Your task to perform on an android device: turn off translation in the chrome app Image 0: 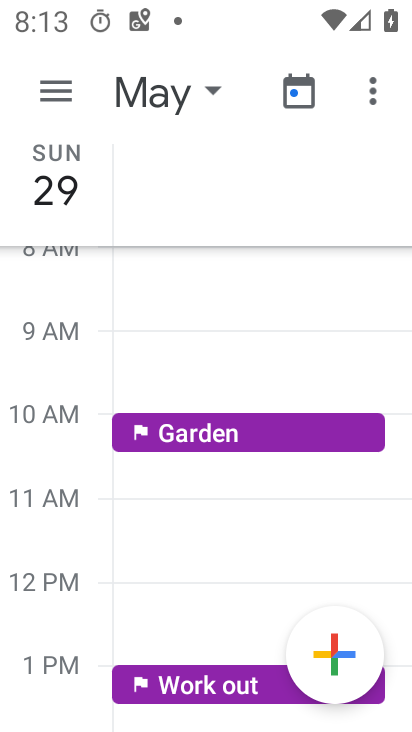
Step 0: press home button
Your task to perform on an android device: turn off translation in the chrome app Image 1: 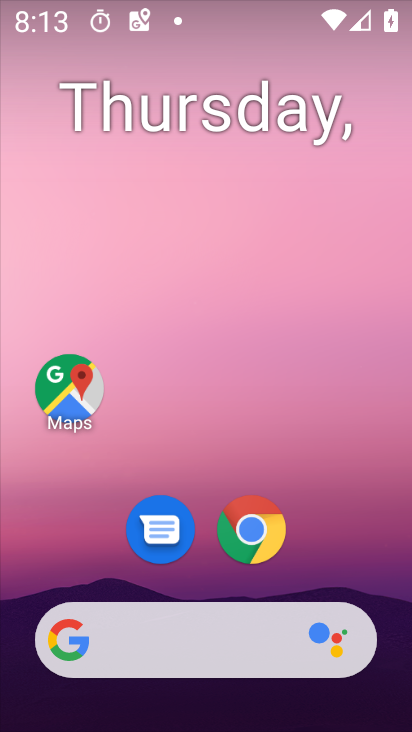
Step 1: click (254, 518)
Your task to perform on an android device: turn off translation in the chrome app Image 2: 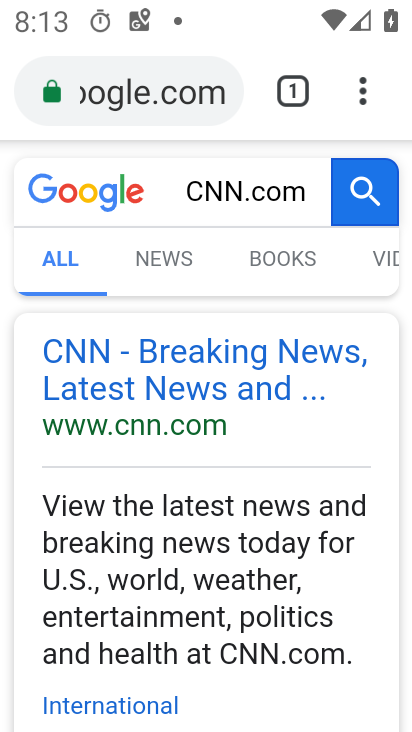
Step 2: click (363, 88)
Your task to perform on an android device: turn off translation in the chrome app Image 3: 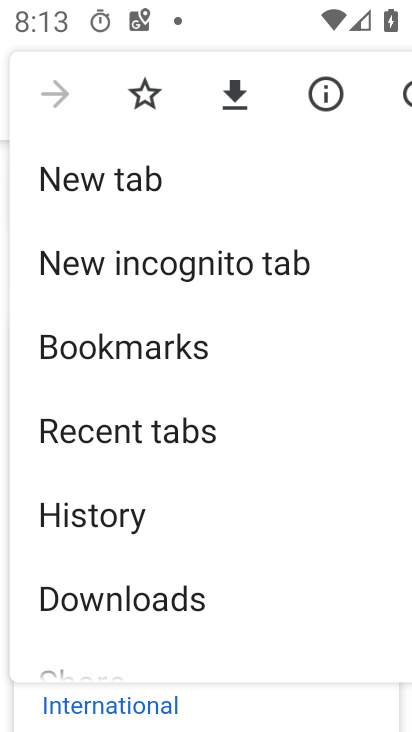
Step 3: drag from (303, 648) to (291, 227)
Your task to perform on an android device: turn off translation in the chrome app Image 4: 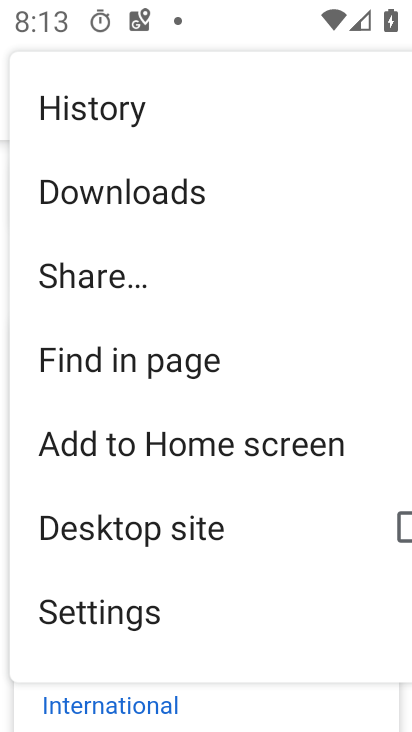
Step 4: click (115, 605)
Your task to perform on an android device: turn off translation in the chrome app Image 5: 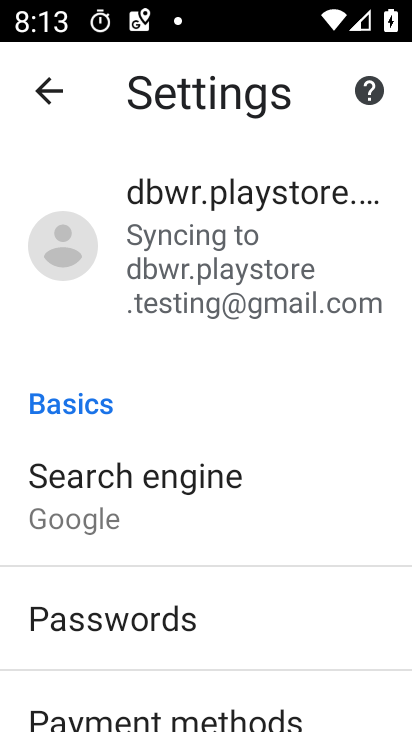
Step 5: drag from (341, 718) to (325, 297)
Your task to perform on an android device: turn off translation in the chrome app Image 6: 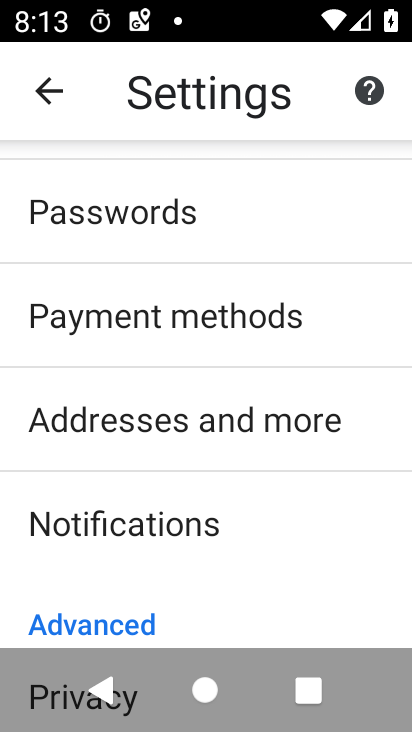
Step 6: drag from (345, 626) to (293, 180)
Your task to perform on an android device: turn off translation in the chrome app Image 7: 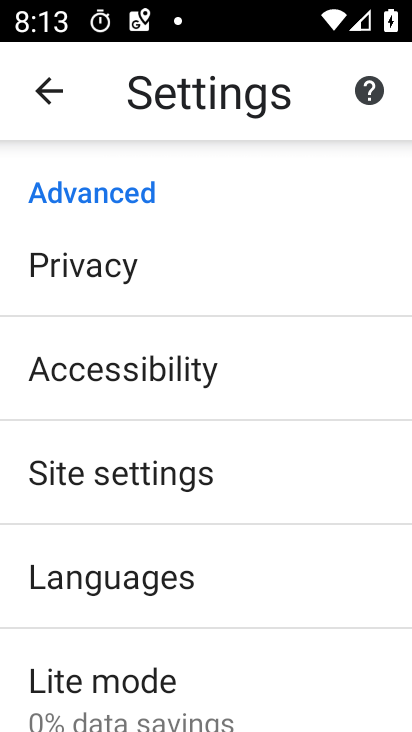
Step 7: click (115, 563)
Your task to perform on an android device: turn off translation in the chrome app Image 8: 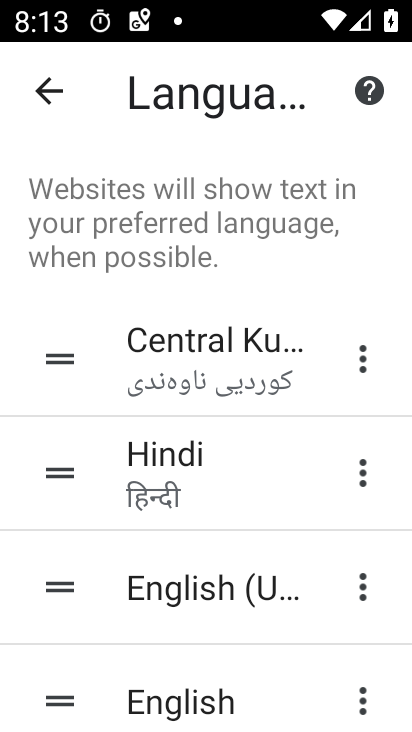
Step 8: drag from (294, 721) to (333, 367)
Your task to perform on an android device: turn off translation in the chrome app Image 9: 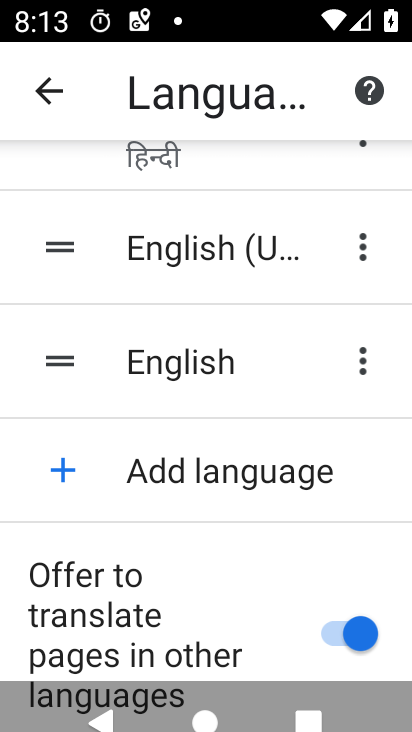
Step 9: click (334, 635)
Your task to perform on an android device: turn off translation in the chrome app Image 10: 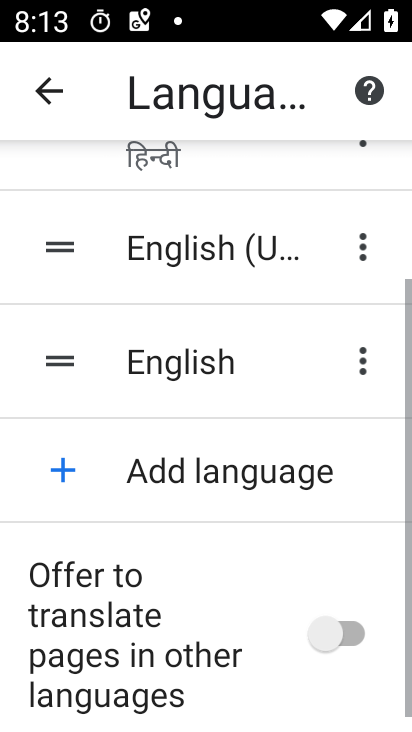
Step 10: task complete